Your task to perform on an android device: Is it going to rain today? Image 0: 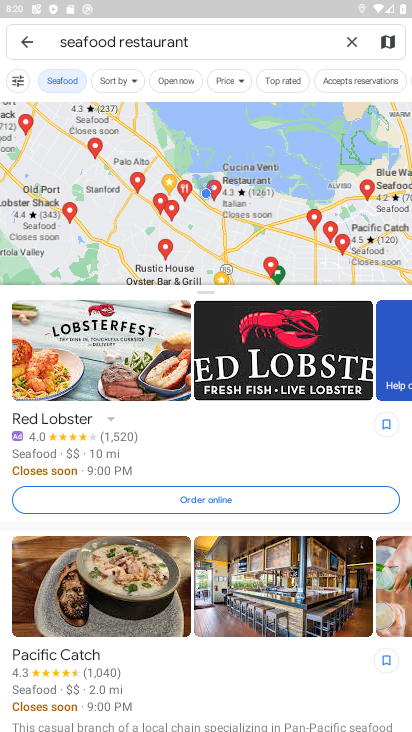
Step 0: press home button
Your task to perform on an android device: Is it going to rain today? Image 1: 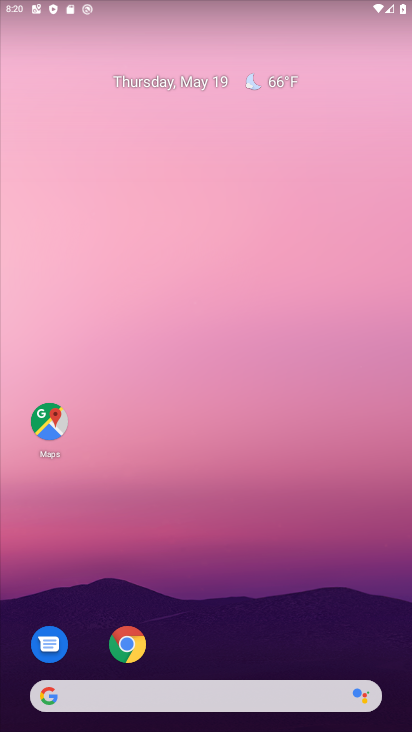
Step 1: drag from (359, 634) to (366, 172)
Your task to perform on an android device: Is it going to rain today? Image 2: 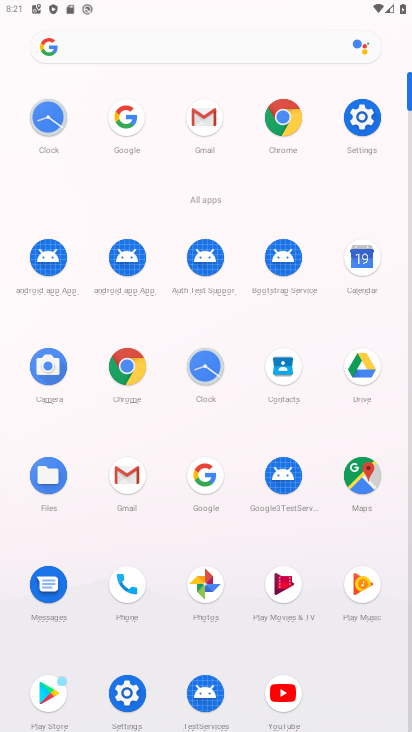
Step 2: click (139, 376)
Your task to perform on an android device: Is it going to rain today? Image 3: 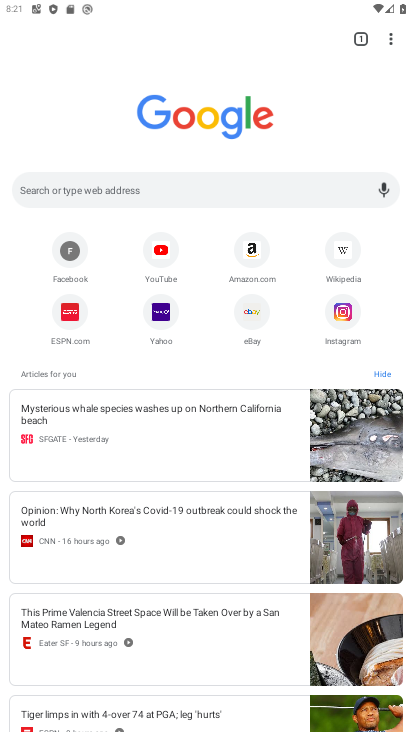
Step 3: click (181, 191)
Your task to perform on an android device: Is it going to rain today? Image 4: 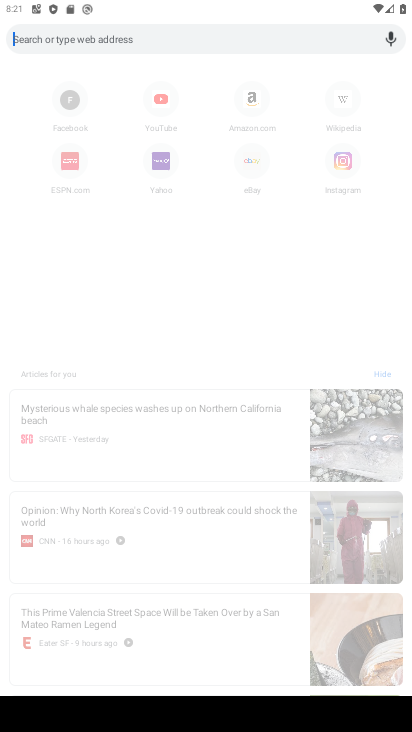
Step 4: type "is it going to rain today"
Your task to perform on an android device: Is it going to rain today? Image 5: 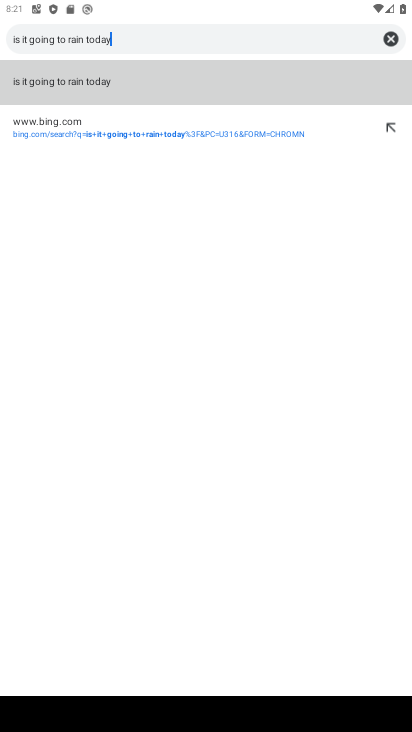
Step 5: click (54, 90)
Your task to perform on an android device: Is it going to rain today? Image 6: 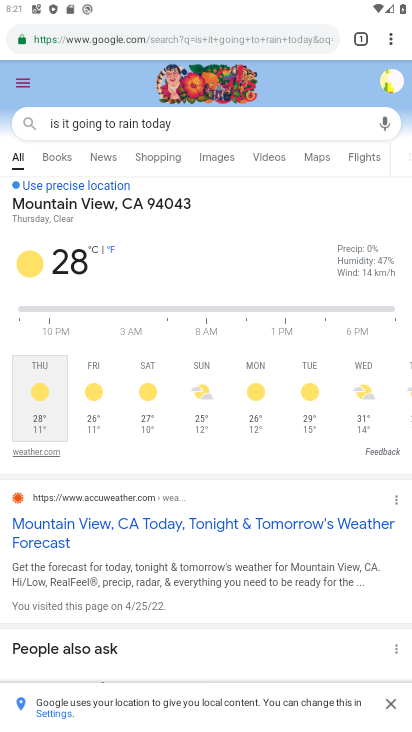
Step 6: task complete